Your task to perform on an android device: Go to Wikipedia Image 0: 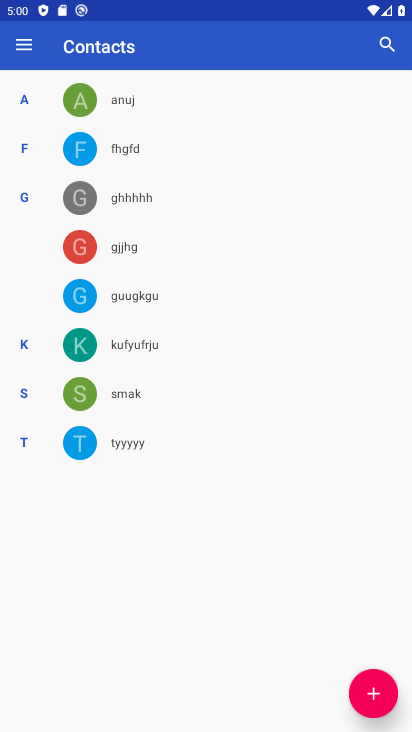
Step 0: press home button
Your task to perform on an android device: Go to Wikipedia Image 1: 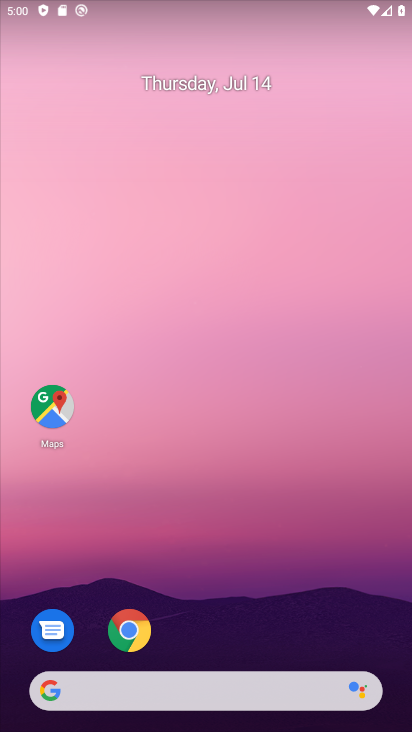
Step 1: click (38, 694)
Your task to perform on an android device: Go to Wikipedia Image 2: 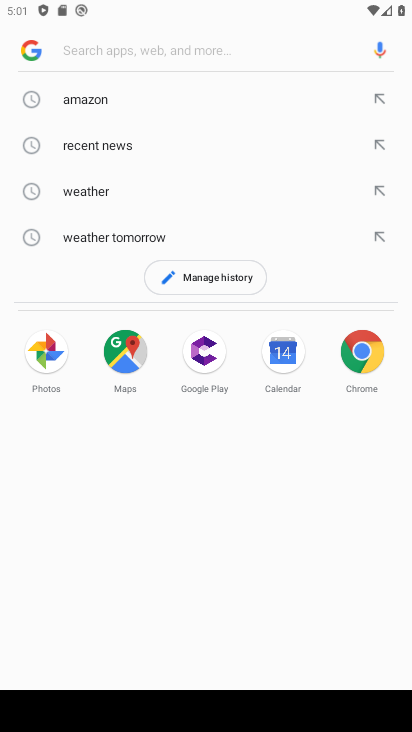
Step 2: type "Wikipedia"
Your task to perform on an android device: Go to Wikipedia Image 3: 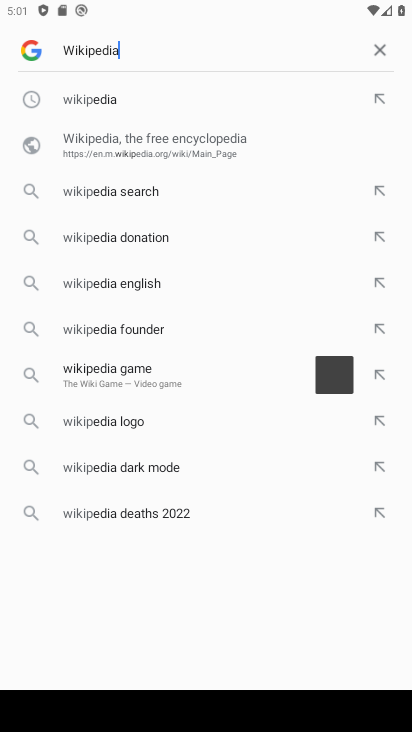
Step 3: press enter
Your task to perform on an android device: Go to Wikipedia Image 4: 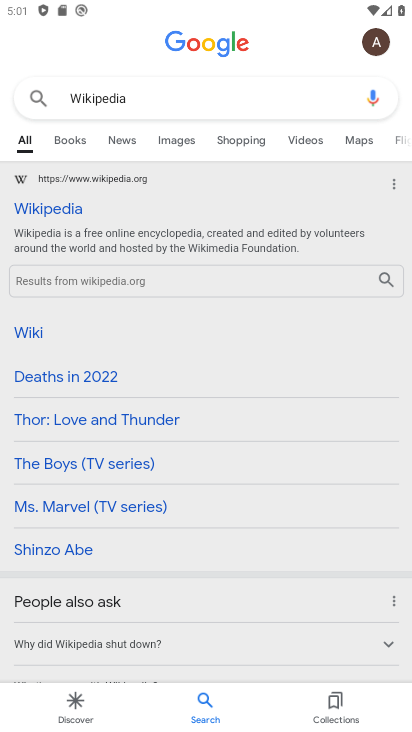
Step 4: click (47, 212)
Your task to perform on an android device: Go to Wikipedia Image 5: 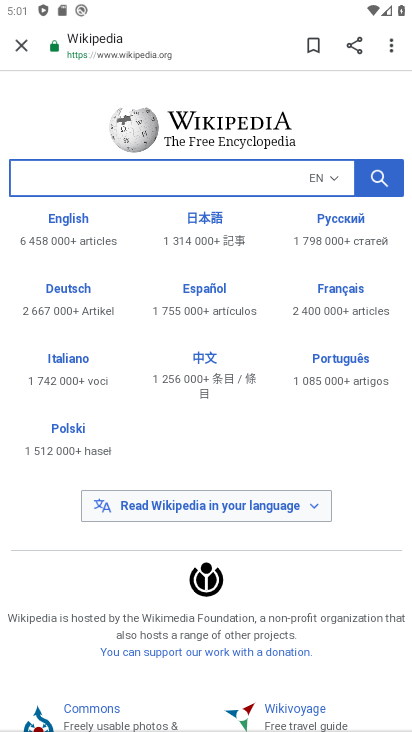
Step 5: task complete